Your task to perform on an android device: open app "ColorNote Notepad Notes" (install if not already installed) Image 0: 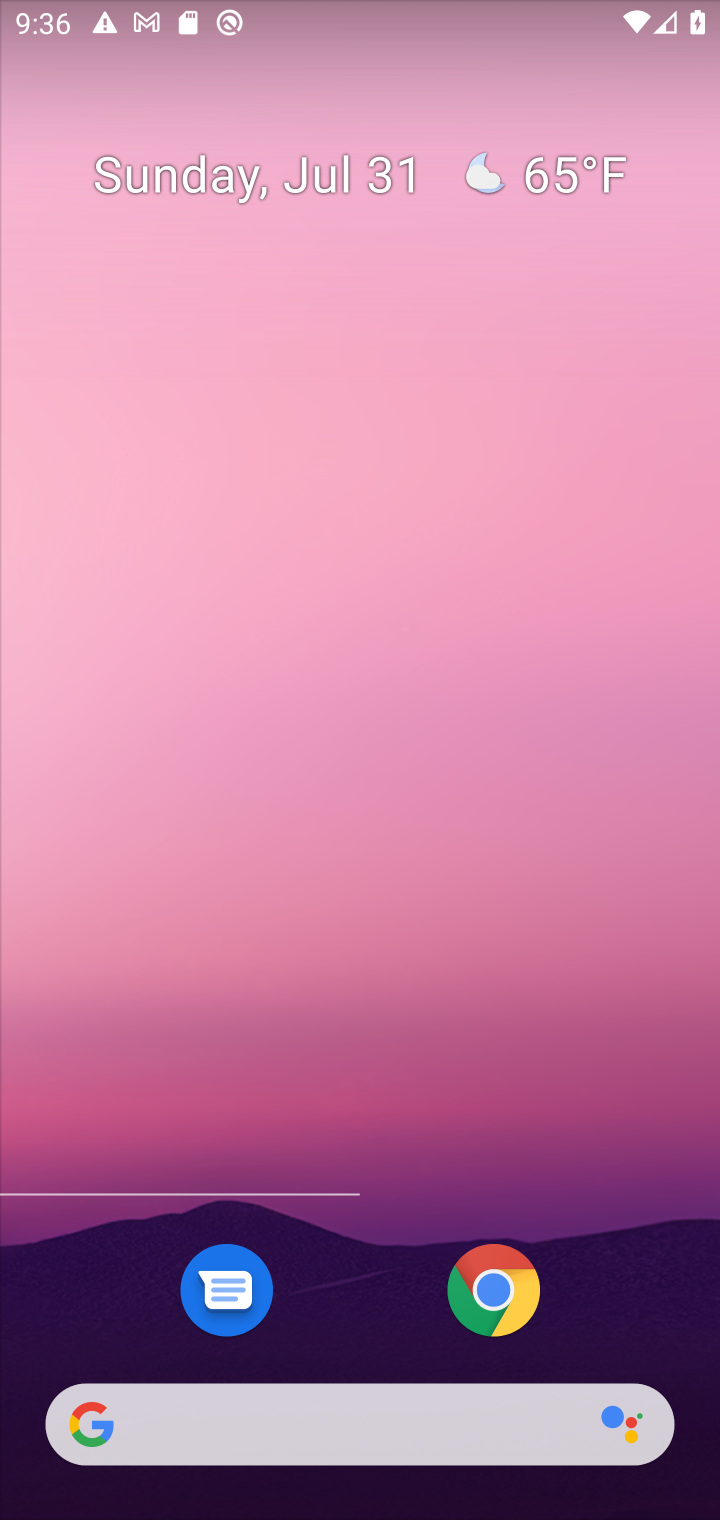
Step 0: press home button
Your task to perform on an android device: open app "ColorNote Notepad Notes" (install if not already installed) Image 1: 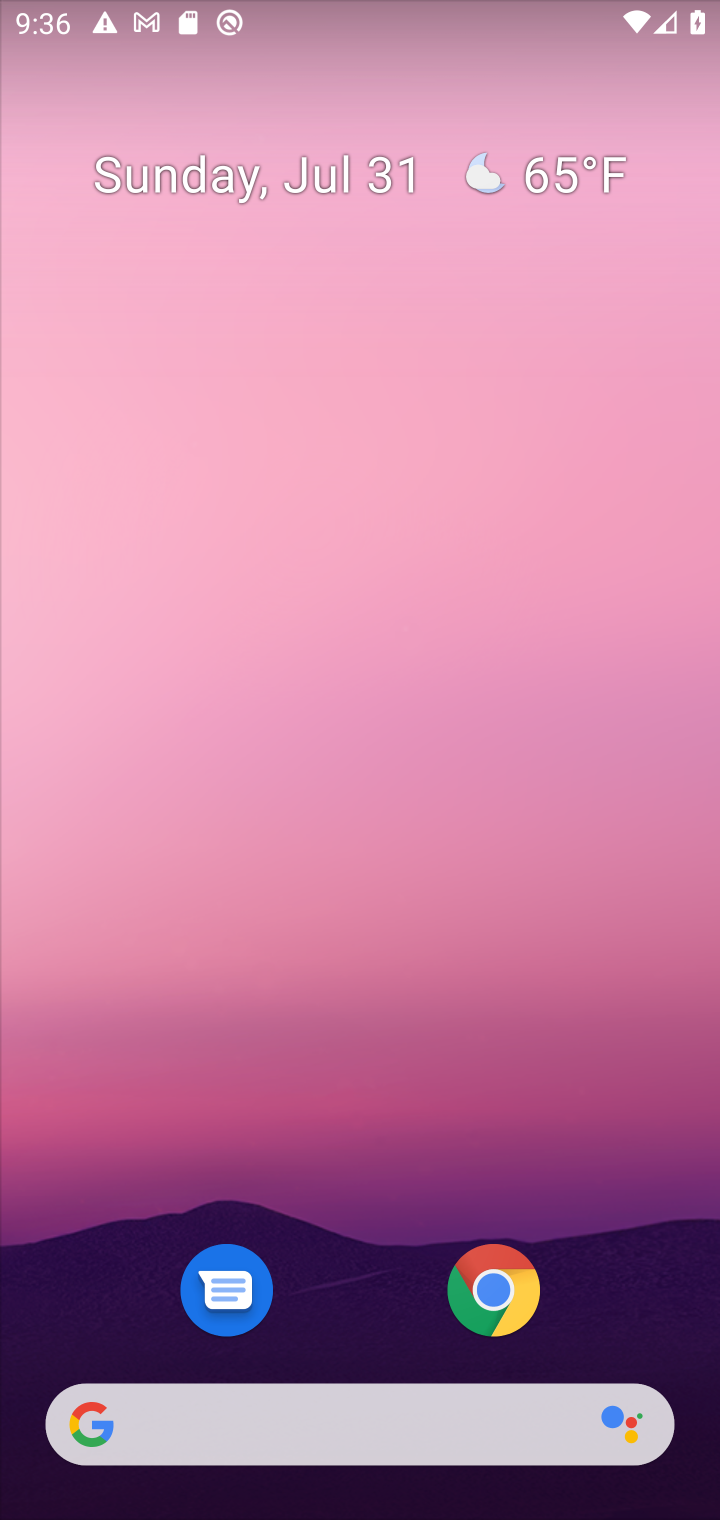
Step 1: drag from (614, 1114) to (604, 93)
Your task to perform on an android device: open app "ColorNote Notepad Notes" (install if not already installed) Image 2: 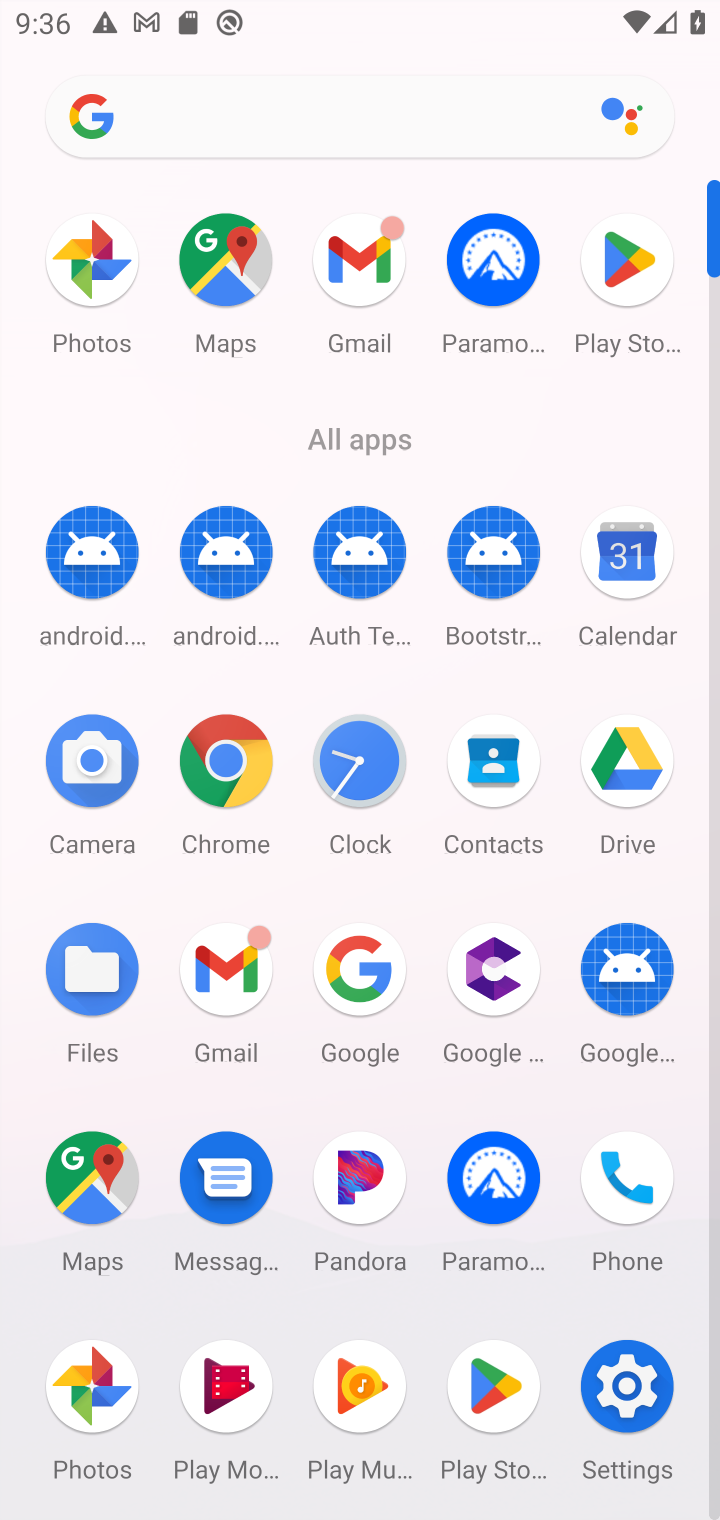
Step 2: click (619, 246)
Your task to perform on an android device: open app "ColorNote Notepad Notes" (install if not already installed) Image 3: 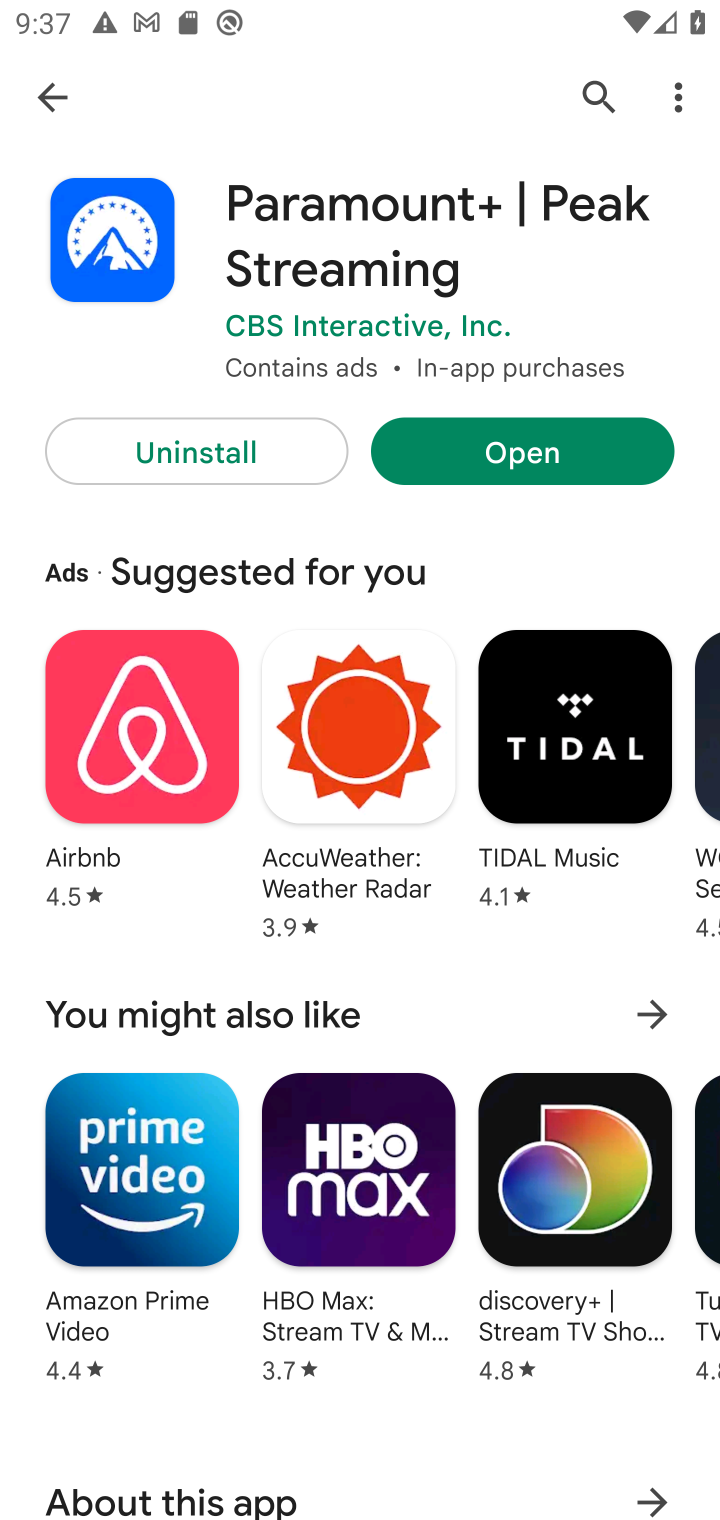
Step 3: press back button
Your task to perform on an android device: open app "ColorNote Notepad Notes" (install if not already installed) Image 4: 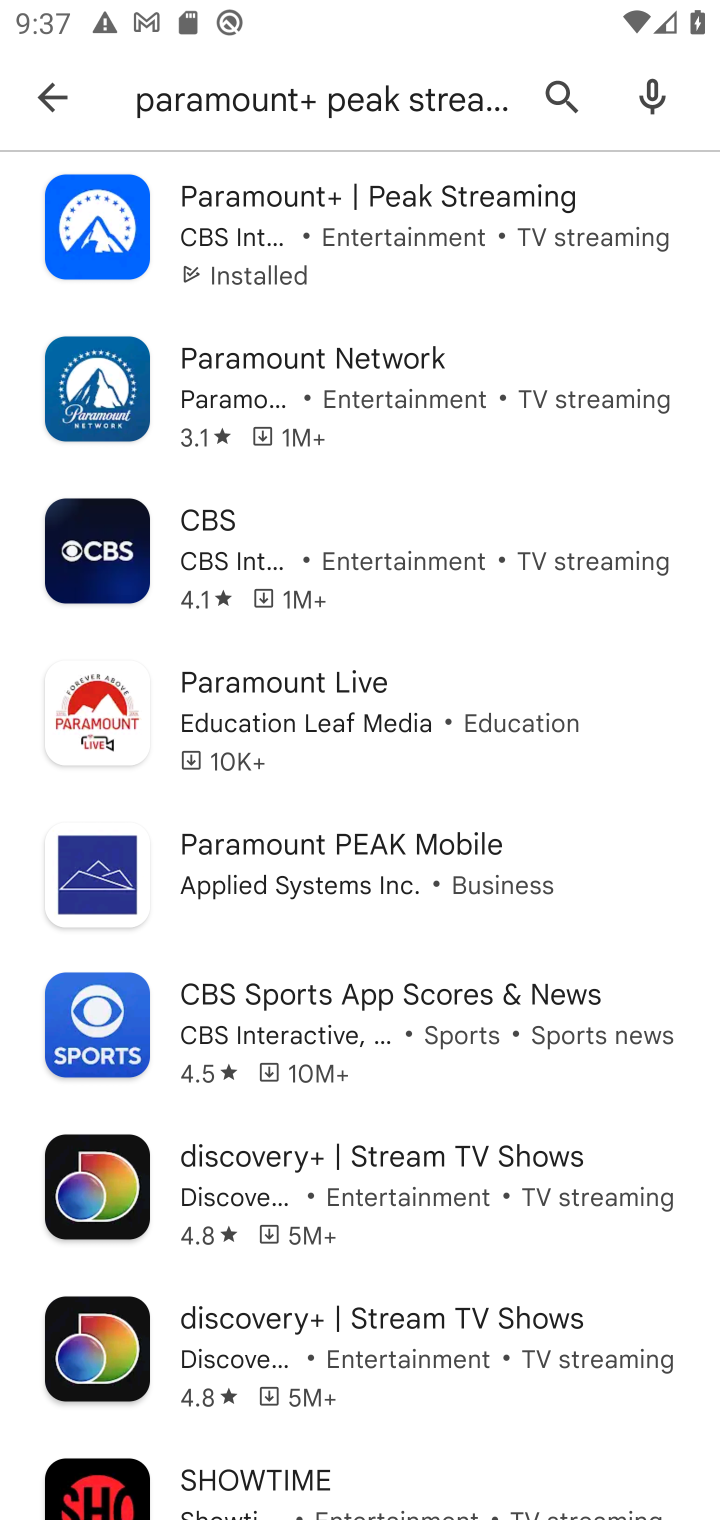
Step 4: click (563, 88)
Your task to perform on an android device: open app "ColorNote Notepad Notes" (install if not already installed) Image 5: 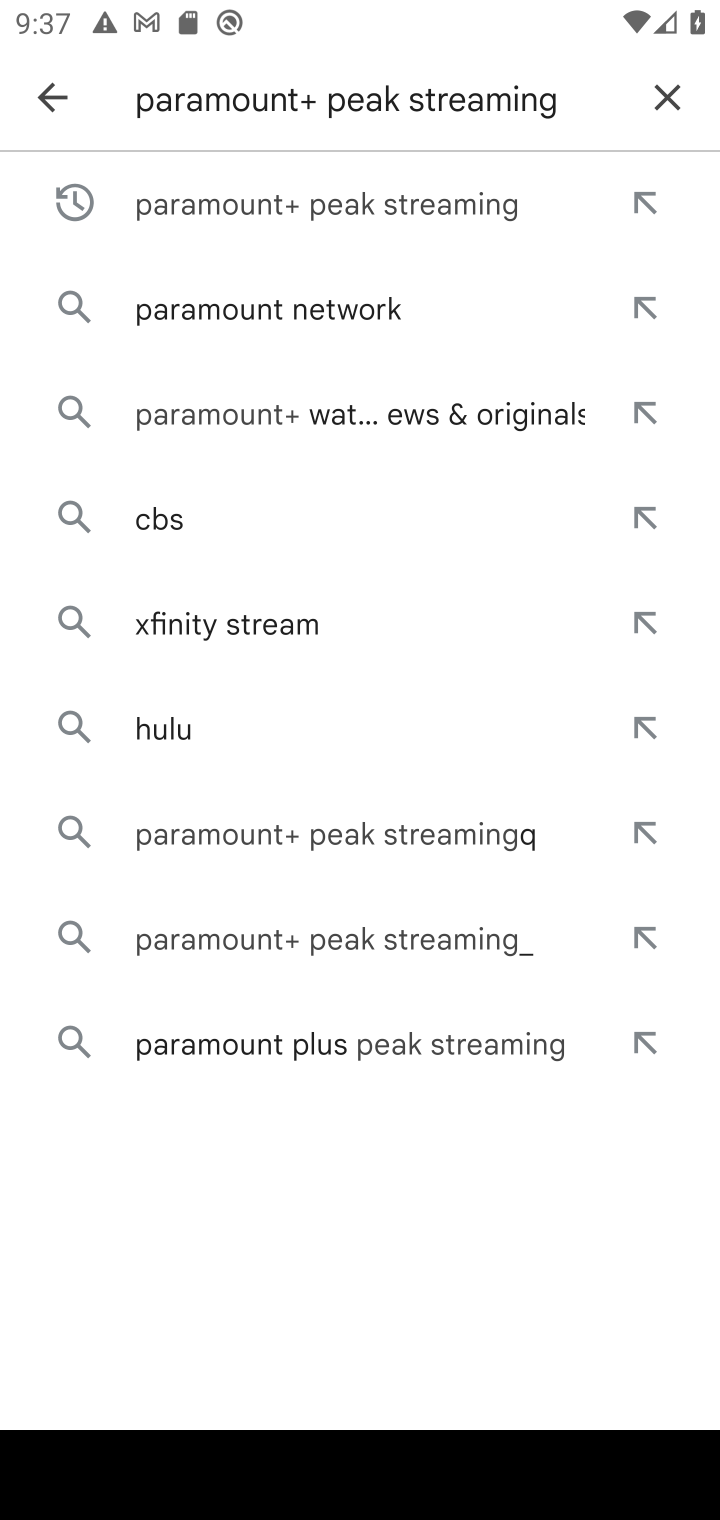
Step 5: click (652, 109)
Your task to perform on an android device: open app "ColorNote Notepad Notes" (install if not already installed) Image 6: 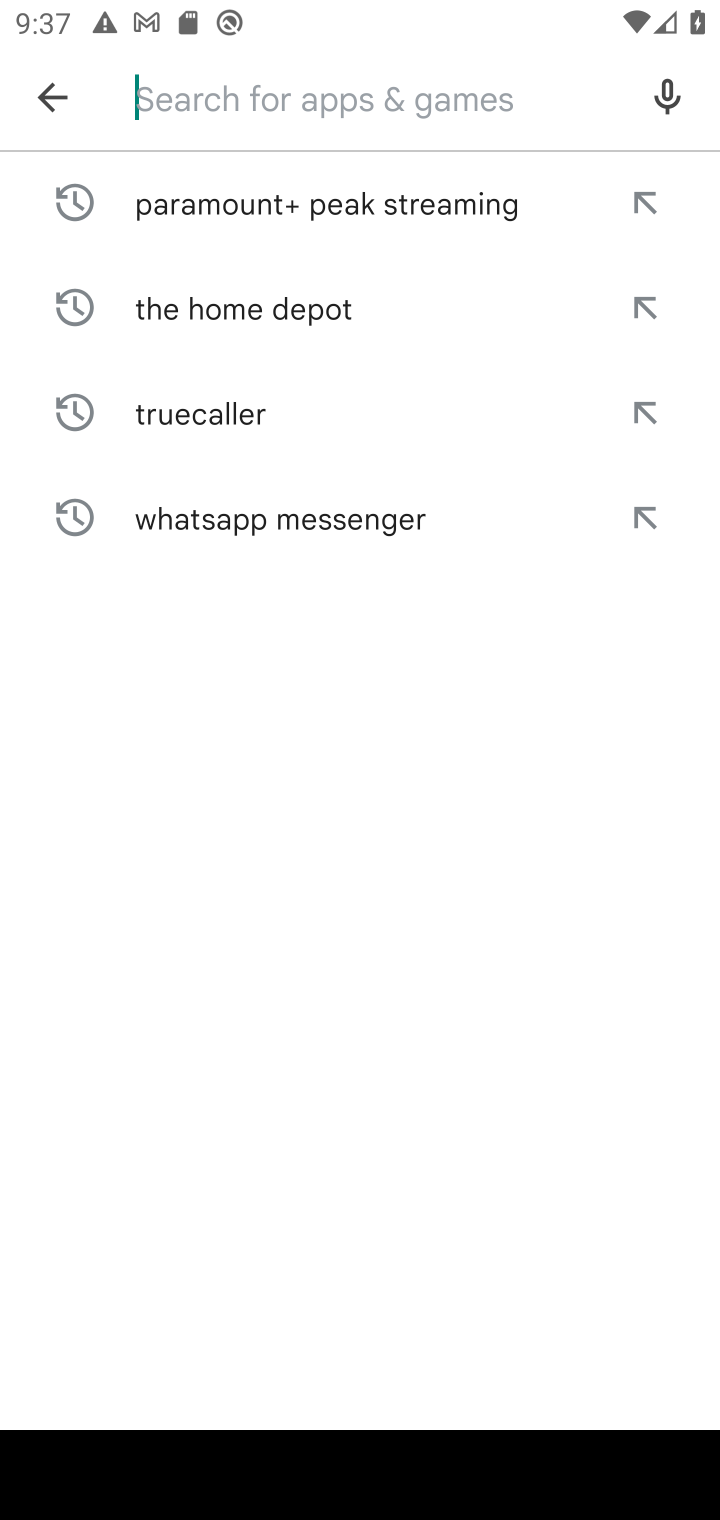
Step 6: type "ColorNote Notepad Notes"
Your task to perform on an android device: open app "ColorNote Notepad Notes" (install if not already installed) Image 7: 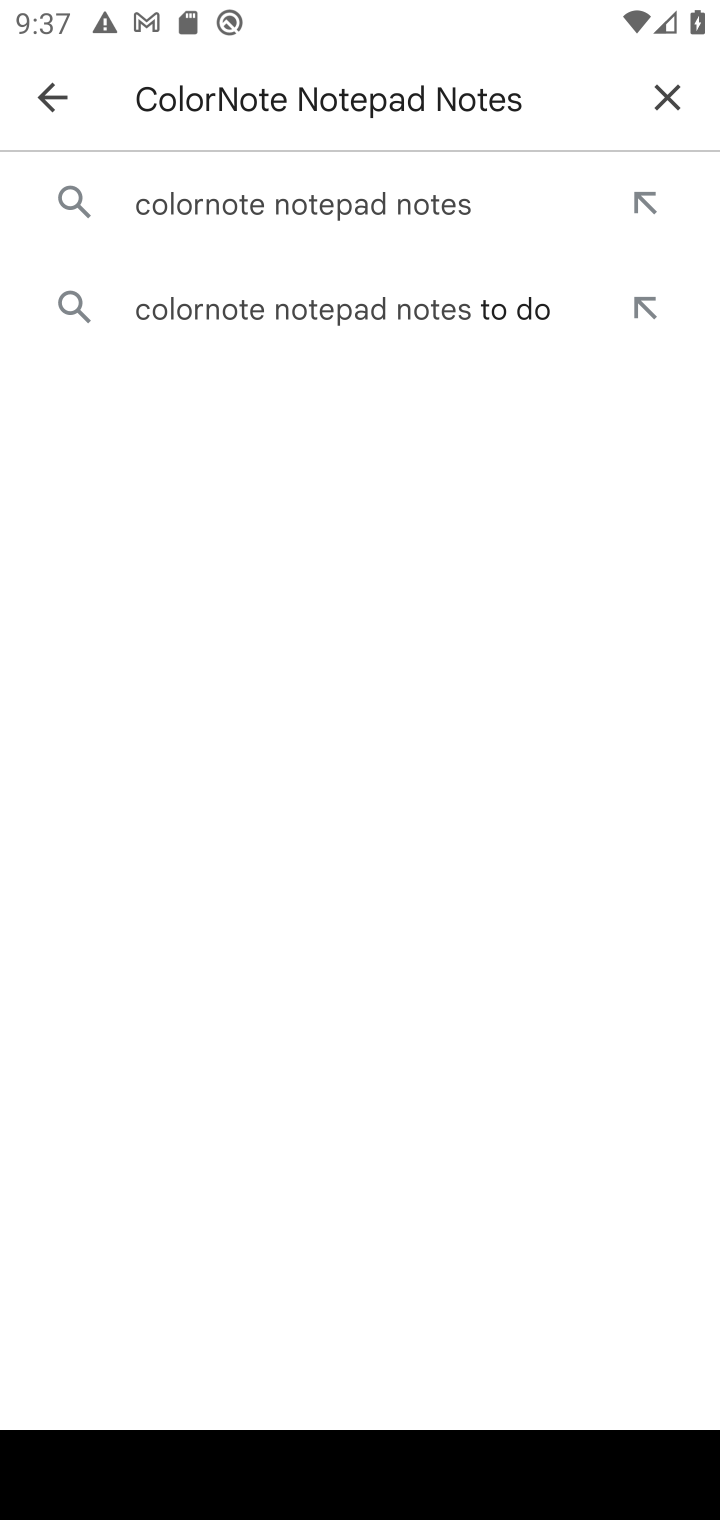
Step 7: click (360, 196)
Your task to perform on an android device: open app "ColorNote Notepad Notes" (install if not already installed) Image 8: 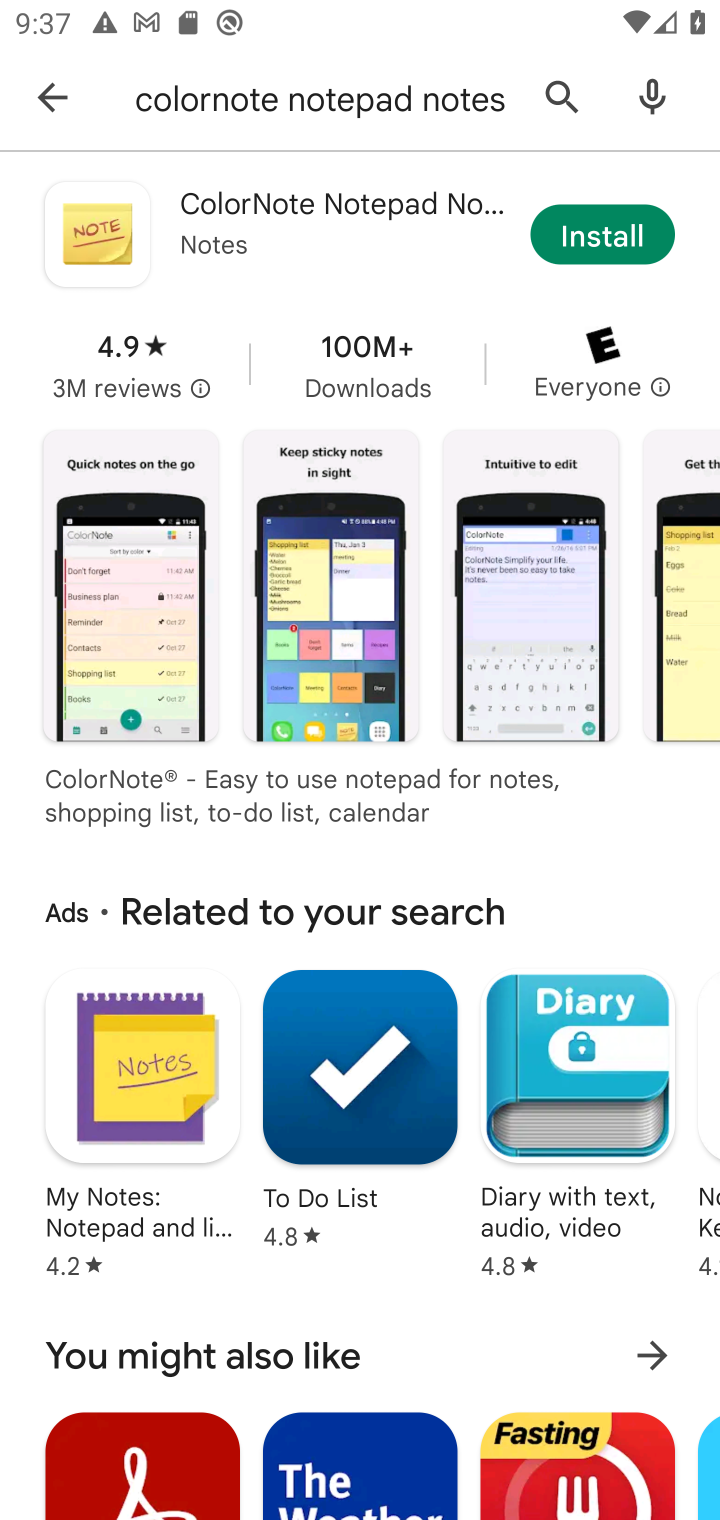
Step 8: click (590, 232)
Your task to perform on an android device: open app "ColorNote Notepad Notes" (install if not already installed) Image 9: 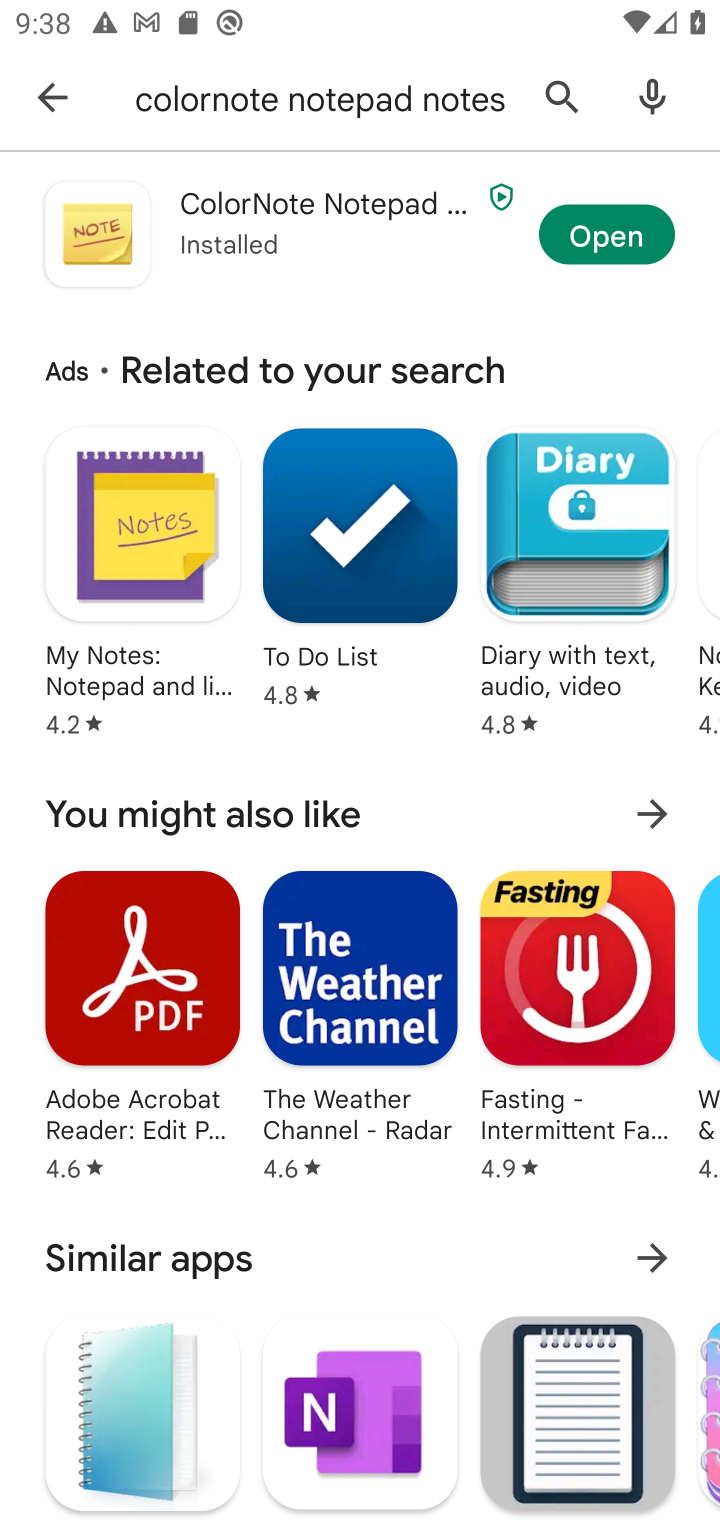
Step 9: click (613, 226)
Your task to perform on an android device: open app "ColorNote Notepad Notes" (install if not already installed) Image 10: 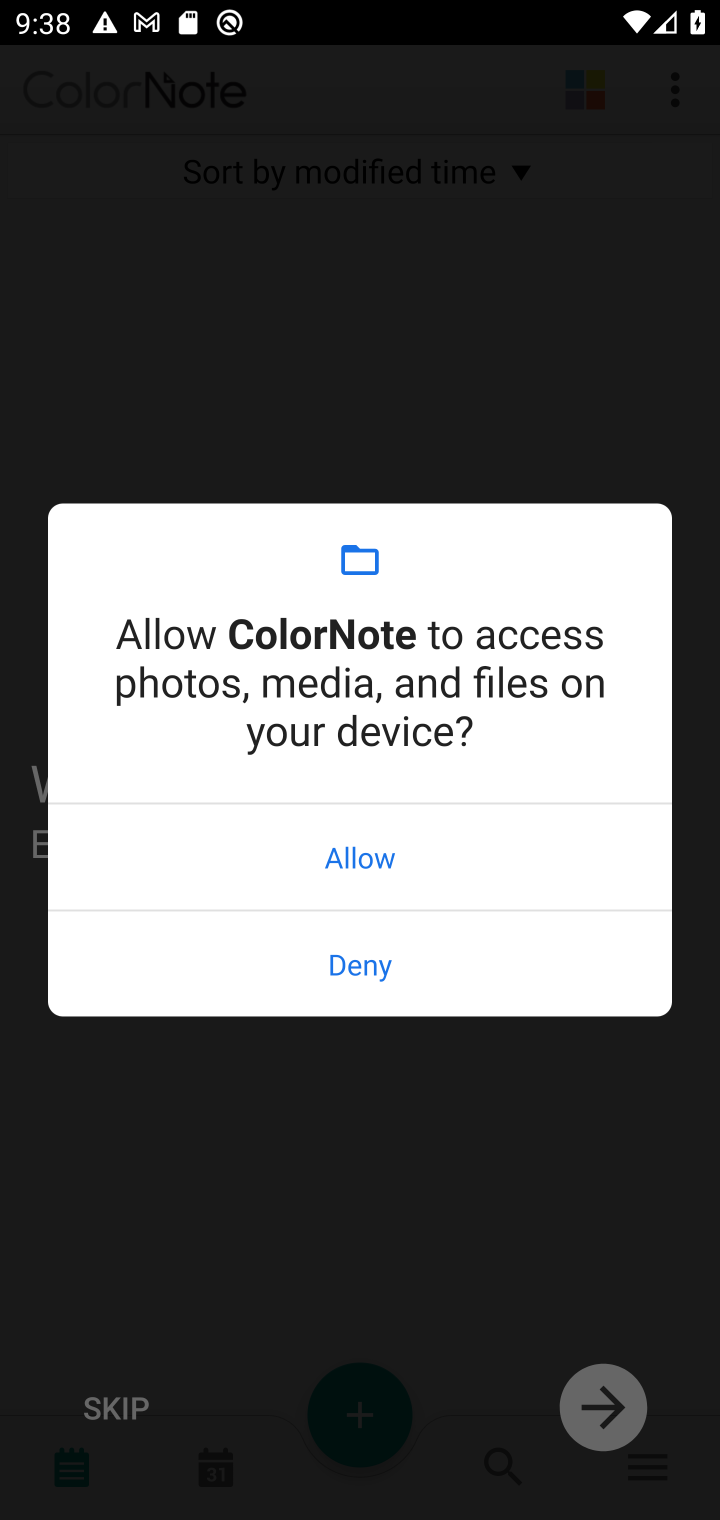
Step 10: task complete